Your task to perform on an android device: turn on notifications settings in the gmail app Image 0: 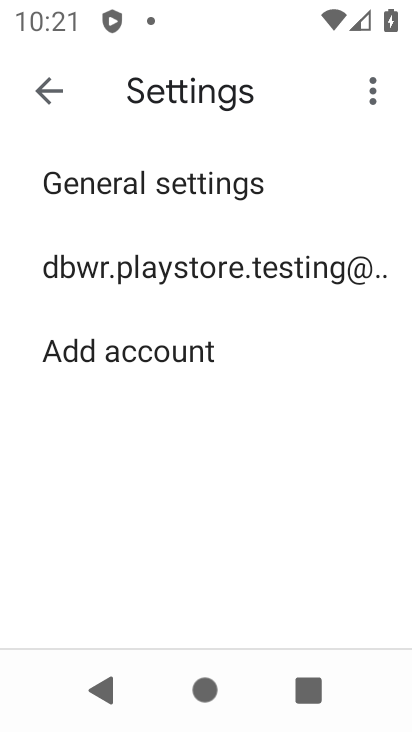
Step 0: press home button
Your task to perform on an android device: turn on notifications settings in the gmail app Image 1: 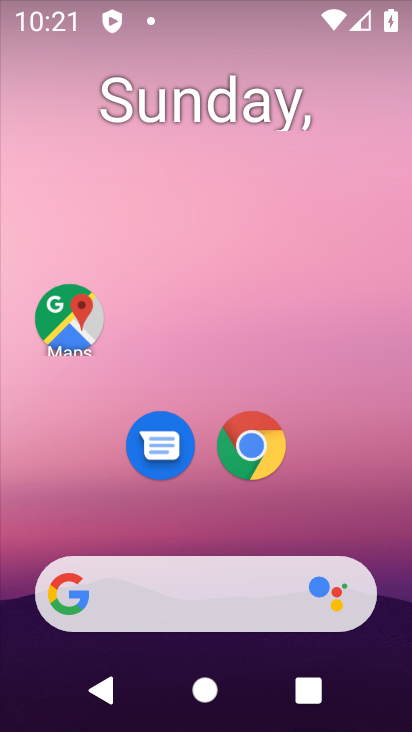
Step 1: drag from (214, 534) to (203, 31)
Your task to perform on an android device: turn on notifications settings in the gmail app Image 2: 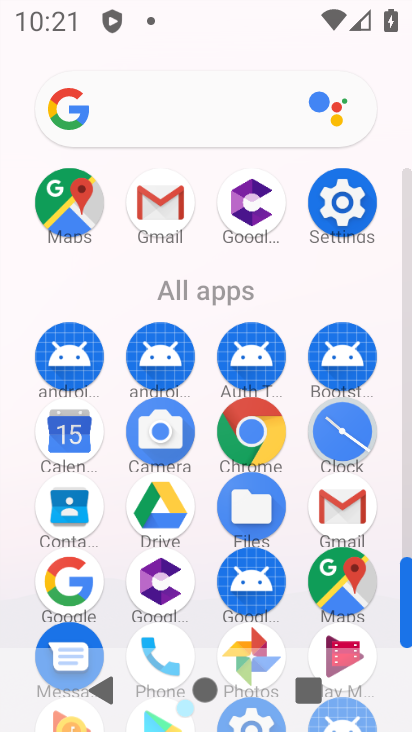
Step 2: click (351, 491)
Your task to perform on an android device: turn on notifications settings in the gmail app Image 3: 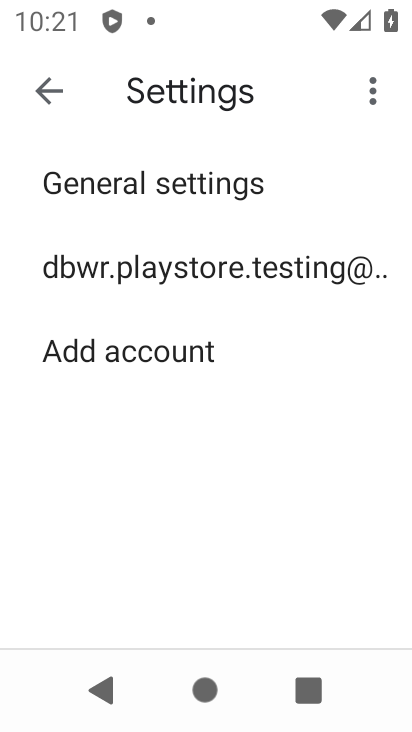
Step 3: click (107, 200)
Your task to perform on an android device: turn on notifications settings in the gmail app Image 4: 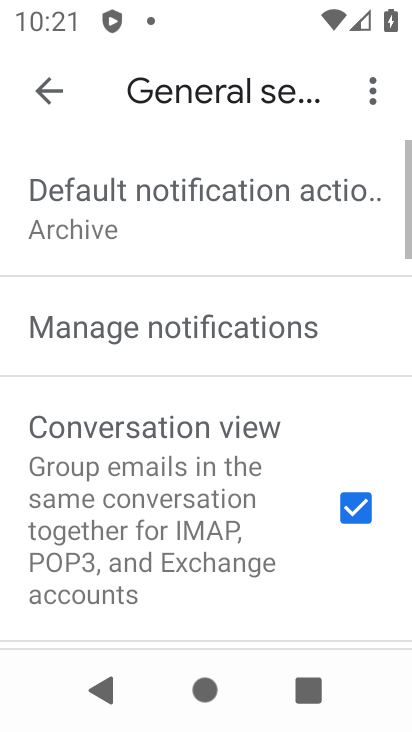
Step 4: click (178, 311)
Your task to perform on an android device: turn on notifications settings in the gmail app Image 5: 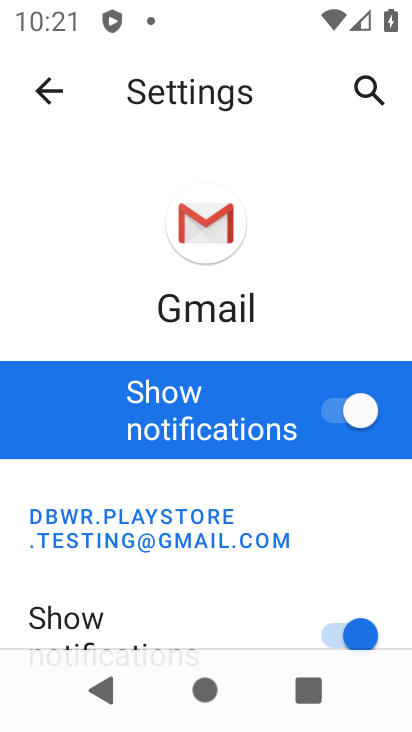
Step 5: task complete